Your task to perform on an android device: Open accessibility settings Image 0: 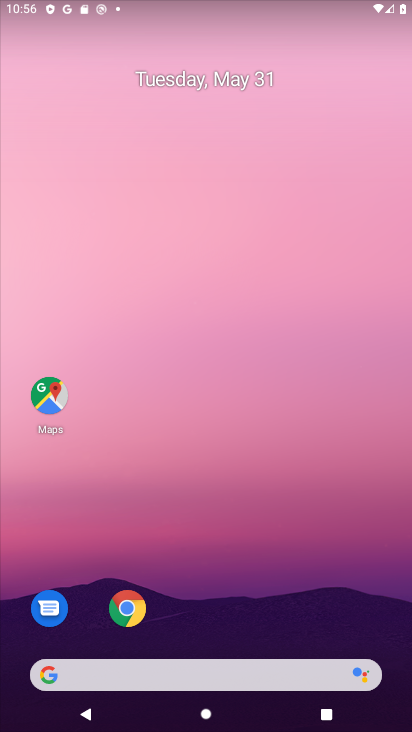
Step 0: press home button
Your task to perform on an android device: Open accessibility settings Image 1: 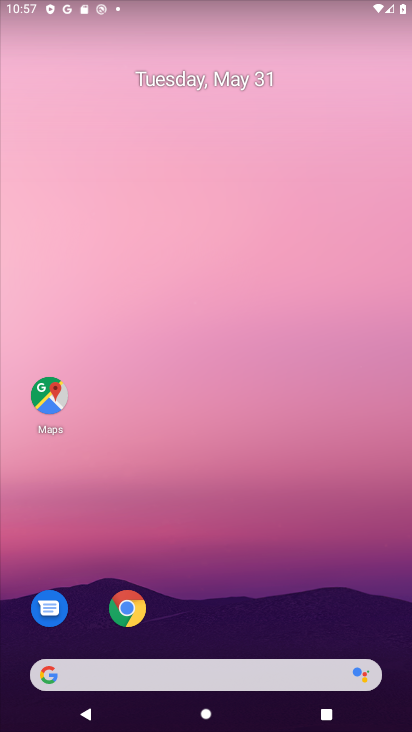
Step 1: drag from (312, 605) to (384, 0)
Your task to perform on an android device: Open accessibility settings Image 2: 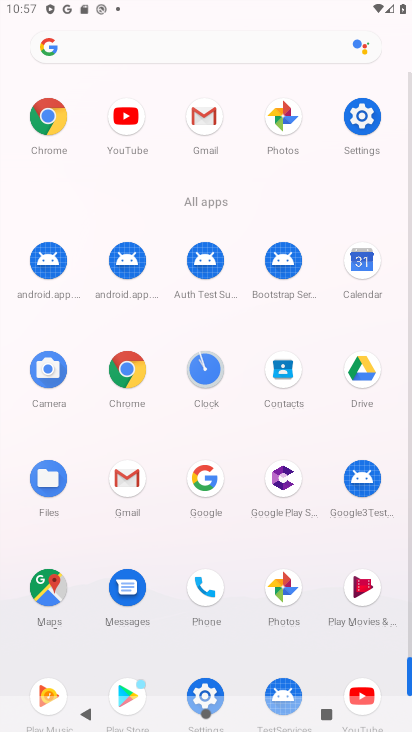
Step 2: click (362, 111)
Your task to perform on an android device: Open accessibility settings Image 3: 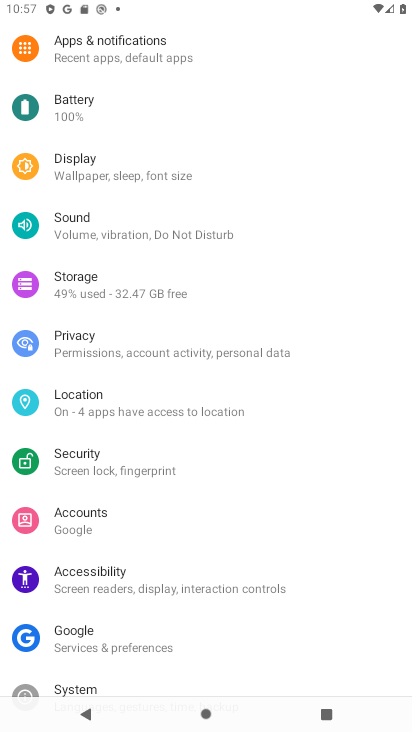
Step 3: click (130, 577)
Your task to perform on an android device: Open accessibility settings Image 4: 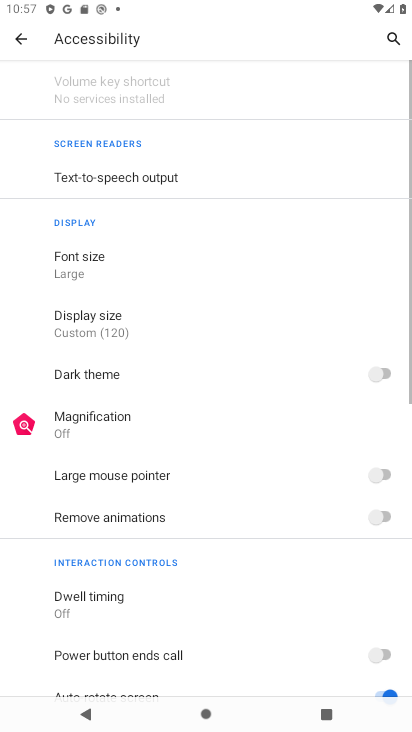
Step 4: task complete